Your task to perform on an android device: Open calendar and show me the fourth week of next month Image 0: 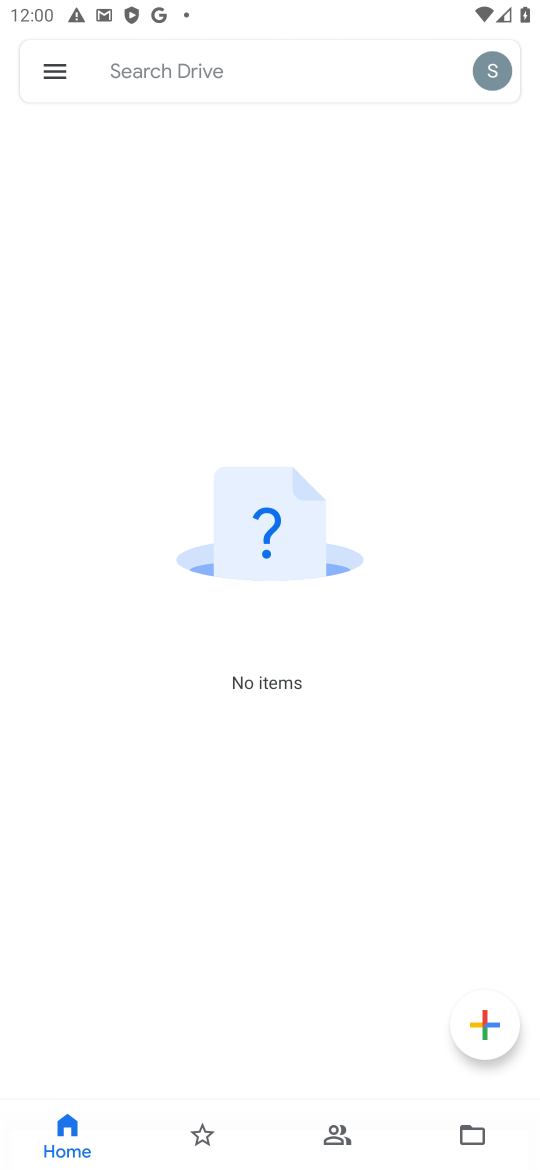
Step 0: press home button
Your task to perform on an android device: Open calendar and show me the fourth week of next month Image 1: 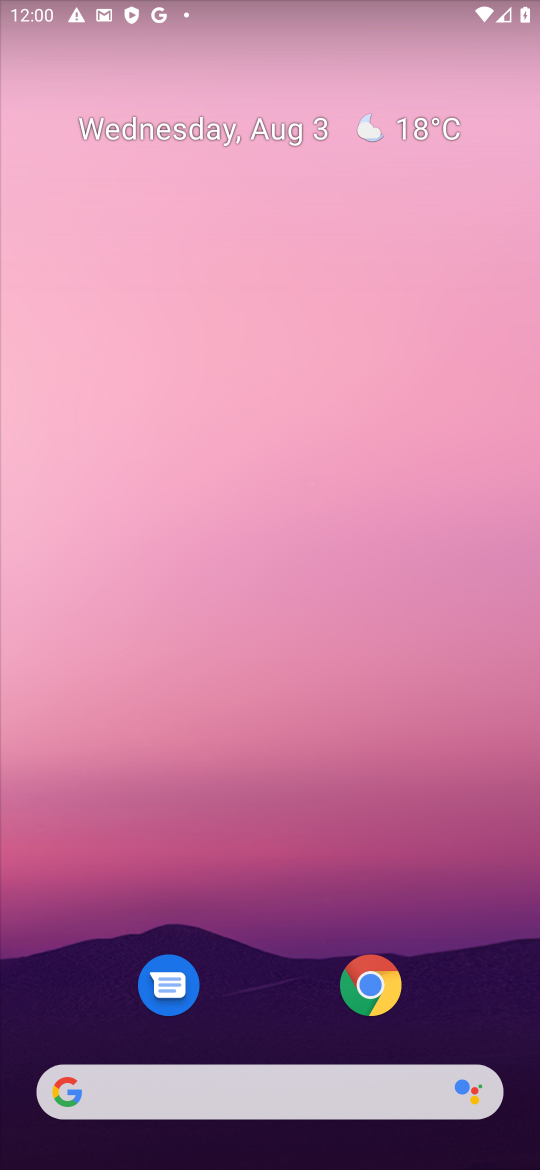
Step 1: drag from (283, 1057) to (283, 185)
Your task to perform on an android device: Open calendar and show me the fourth week of next month Image 2: 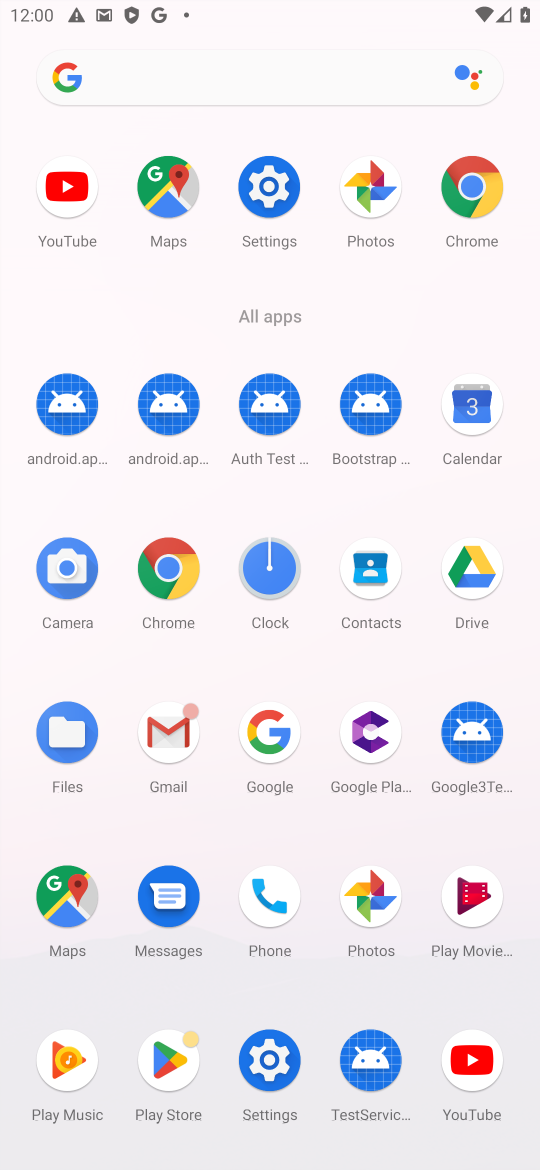
Step 2: click (476, 449)
Your task to perform on an android device: Open calendar and show me the fourth week of next month Image 3: 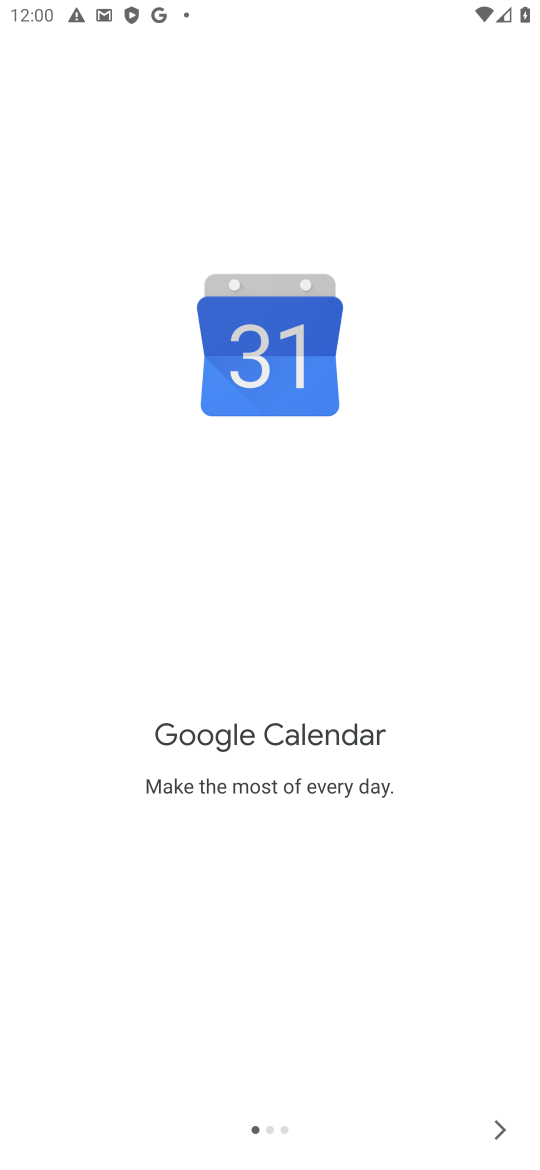
Step 3: click (484, 1143)
Your task to perform on an android device: Open calendar and show me the fourth week of next month Image 4: 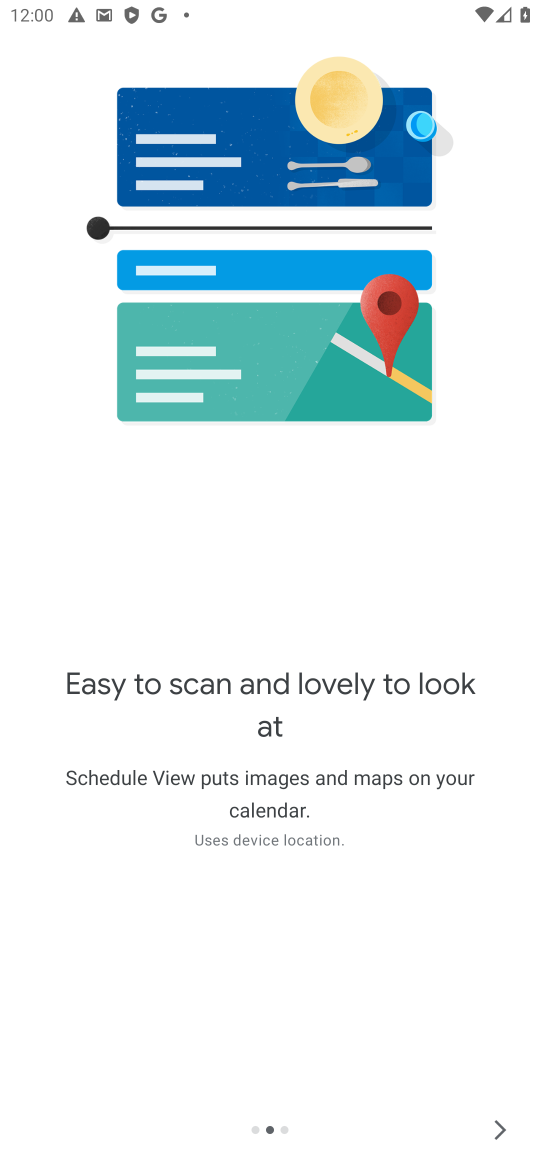
Step 4: click (484, 1143)
Your task to perform on an android device: Open calendar and show me the fourth week of next month Image 5: 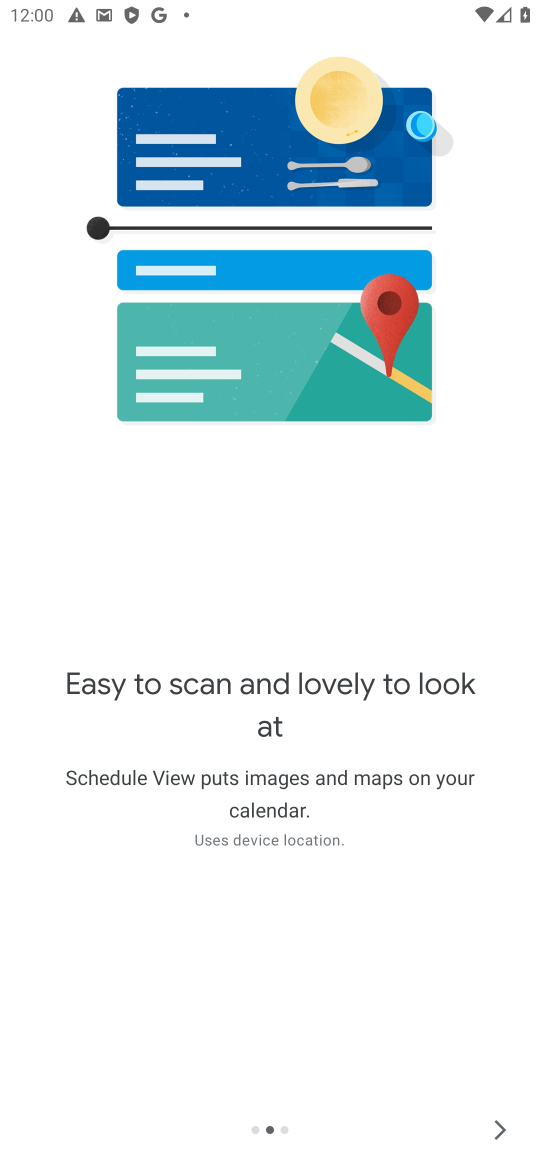
Step 5: click (484, 1143)
Your task to perform on an android device: Open calendar and show me the fourth week of next month Image 6: 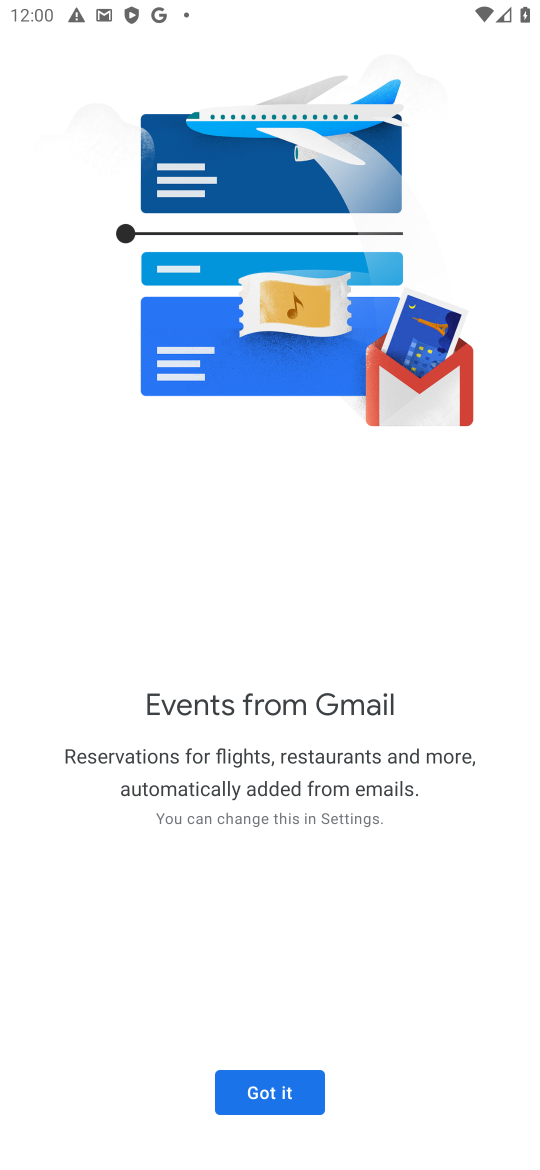
Step 6: click (251, 1083)
Your task to perform on an android device: Open calendar and show me the fourth week of next month Image 7: 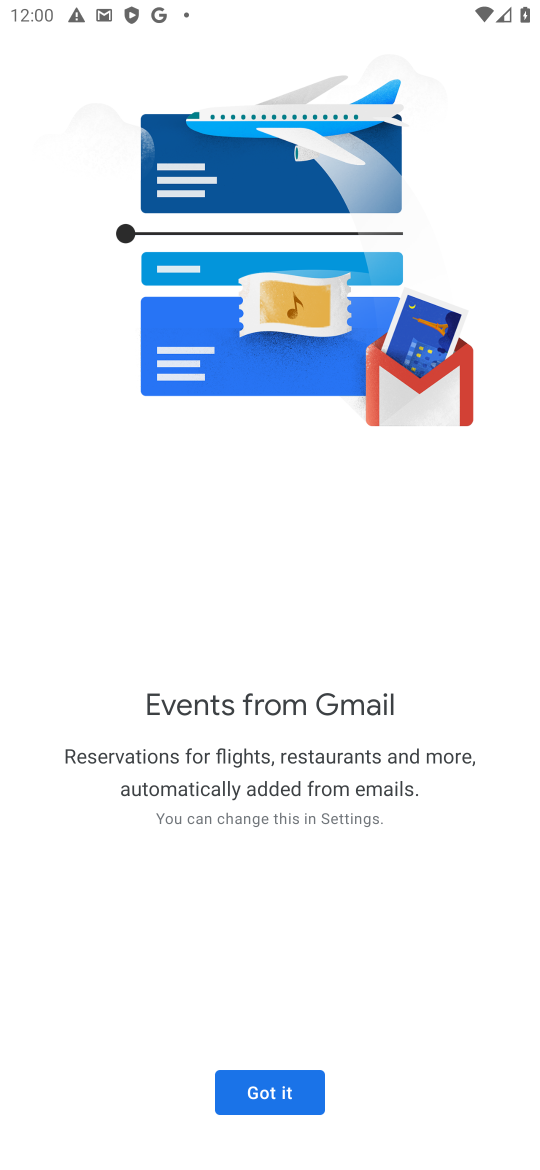
Step 7: task complete